Your task to perform on an android device: Open calendar and show me the fourth week of next month Image 0: 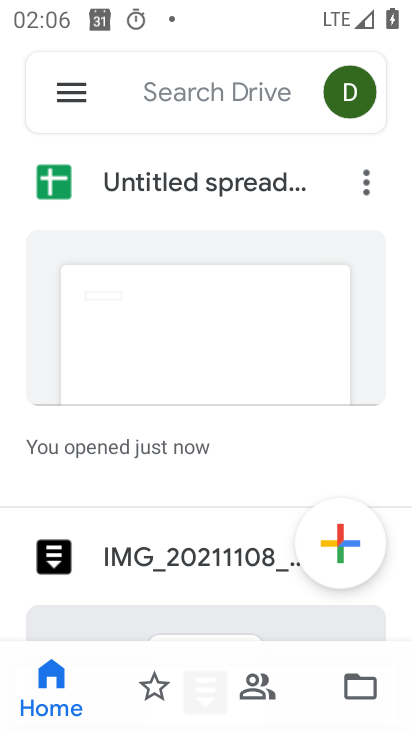
Step 0: press home button
Your task to perform on an android device: Open calendar and show me the fourth week of next month Image 1: 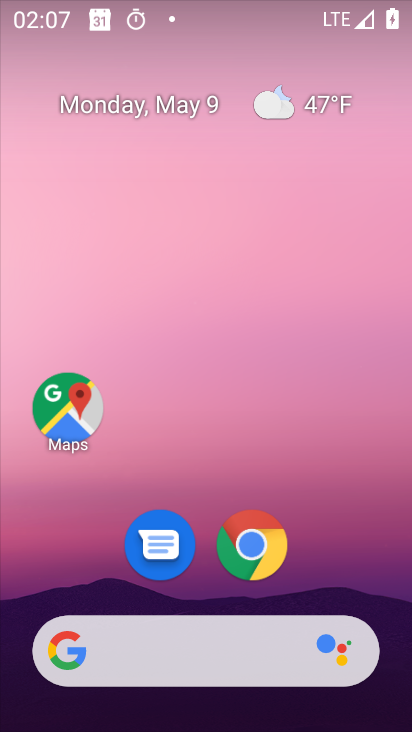
Step 1: drag from (292, 617) to (351, 1)
Your task to perform on an android device: Open calendar and show me the fourth week of next month Image 2: 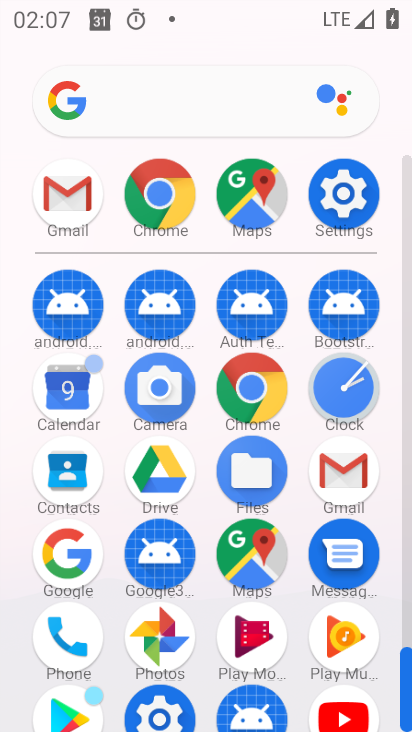
Step 2: click (71, 365)
Your task to perform on an android device: Open calendar and show me the fourth week of next month Image 3: 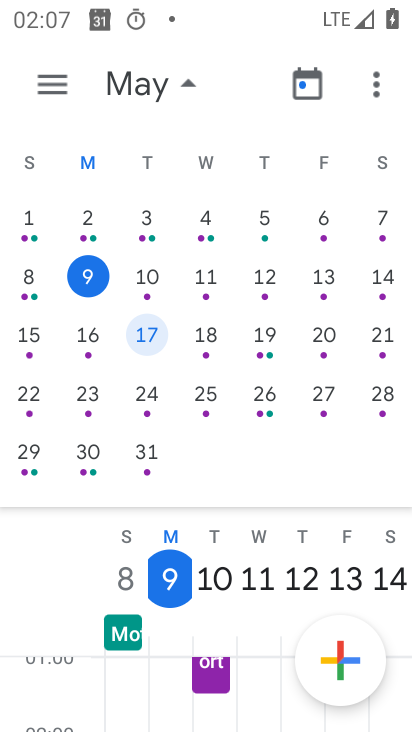
Step 3: drag from (361, 362) to (3, 392)
Your task to perform on an android device: Open calendar and show me the fourth week of next month Image 4: 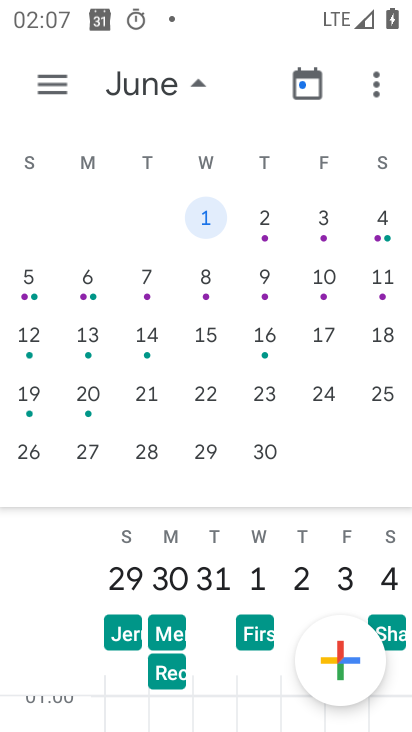
Step 4: click (270, 390)
Your task to perform on an android device: Open calendar and show me the fourth week of next month Image 5: 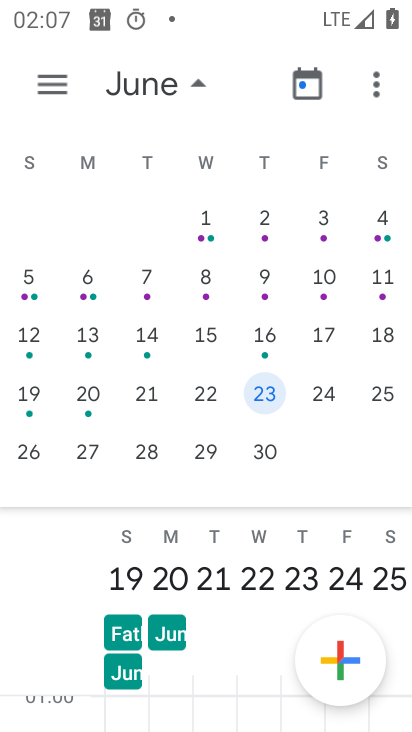
Step 5: task complete